Your task to perform on an android device: turn off notifications settings in the gmail app Image 0: 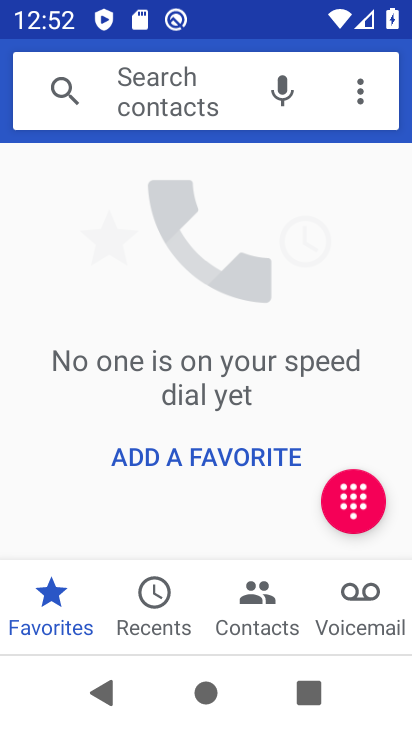
Step 0: press home button
Your task to perform on an android device: turn off notifications settings in the gmail app Image 1: 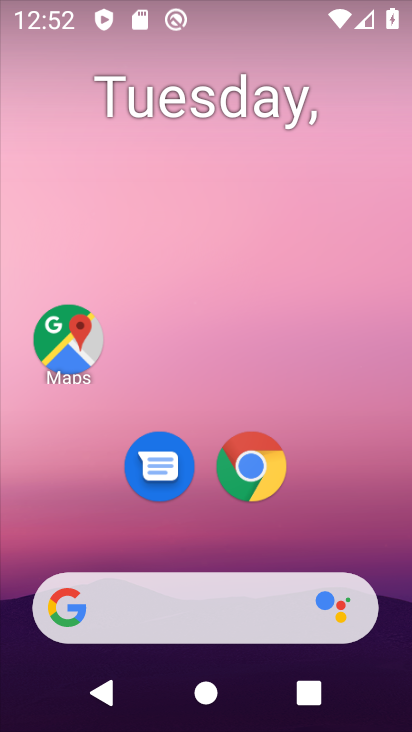
Step 1: drag from (384, 531) to (338, 226)
Your task to perform on an android device: turn off notifications settings in the gmail app Image 2: 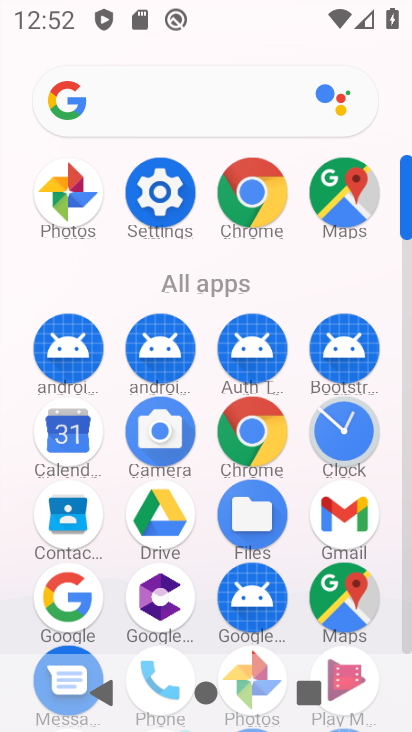
Step 2: click (328, 505)
Your task to perform on an android device: turn off notifications settings in the gmail app Image 3: 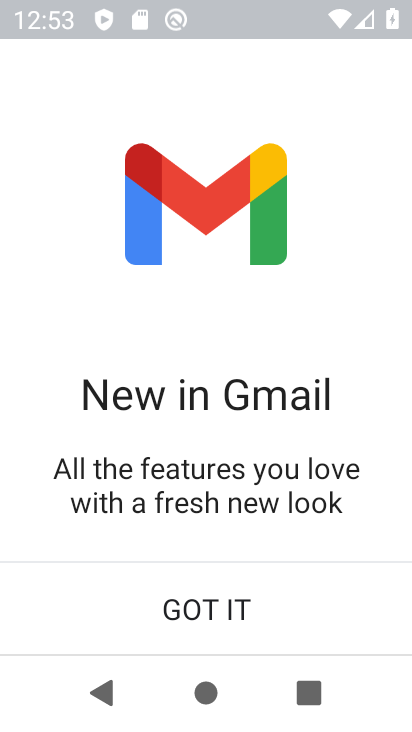
Step 3: click (207, 630)
Your task to perform on an android device: turn off notifications settings in the gmail app Image 4: 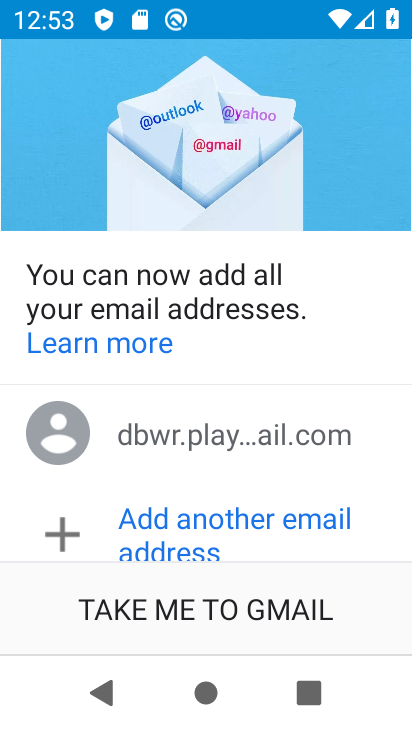
Step 4: click (181, 590)
Your task to perform on an android device: turn off notifications settings in the gmail app Image 5: 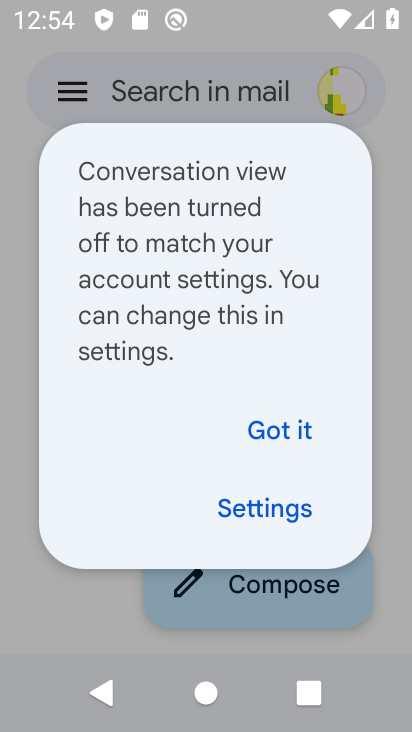
Step 5: click (263, 438)
Your task to perform on an android device: turn off notifications settings in the gmail app Image 6: 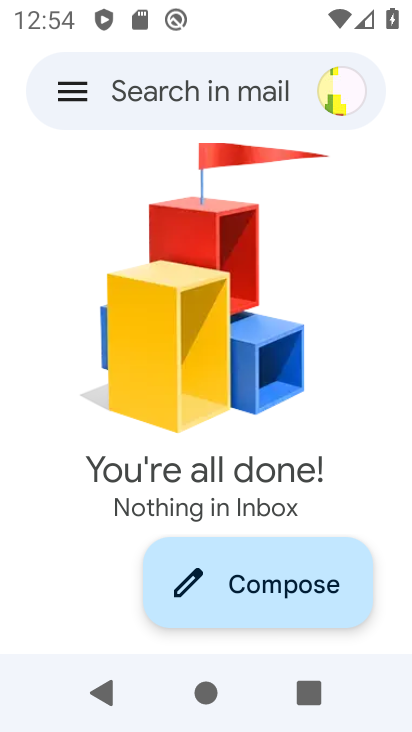
Step 6: task complete